Your task to perform on an android device: Open the calendar and show me this week's events Image 0: 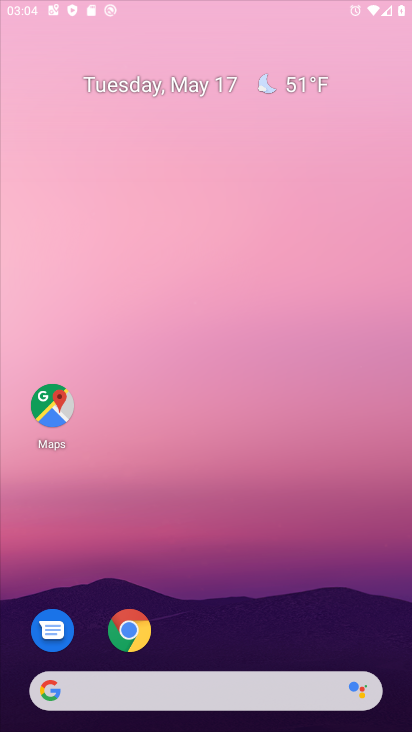
Step 0: drag from (173, 478) to (226, 152)
Your task to perform on an android device: Open the calendar and show me this week's events Image 1: 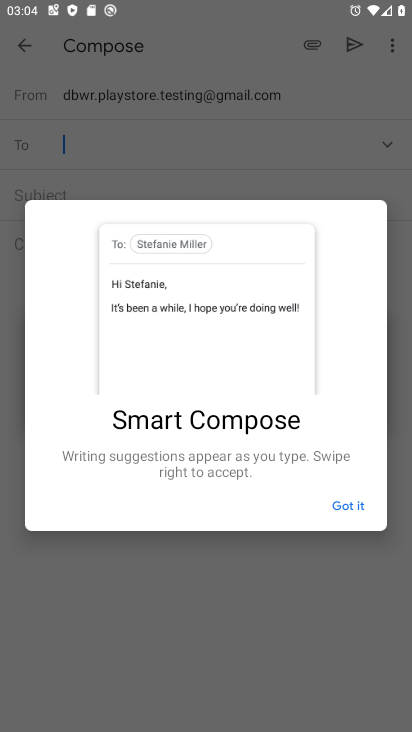
Step 1: click (339, 504)
Your task to perform on an android device: Open the calendar and show me this week's events Image 2: 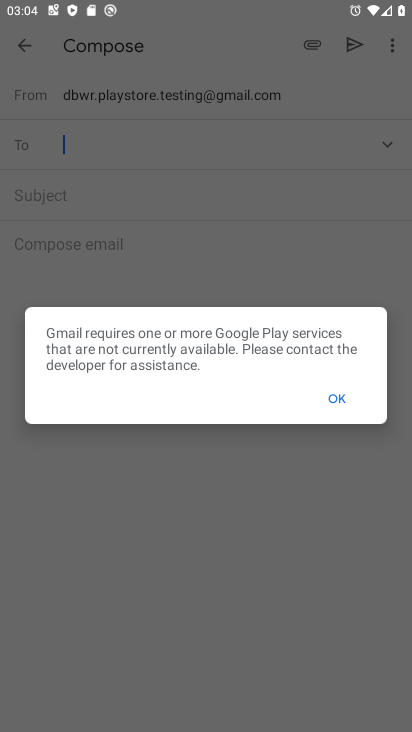
Step 2: press back button
Your task to perform on an android device: Open the calendar and show me this week's events Image 3: 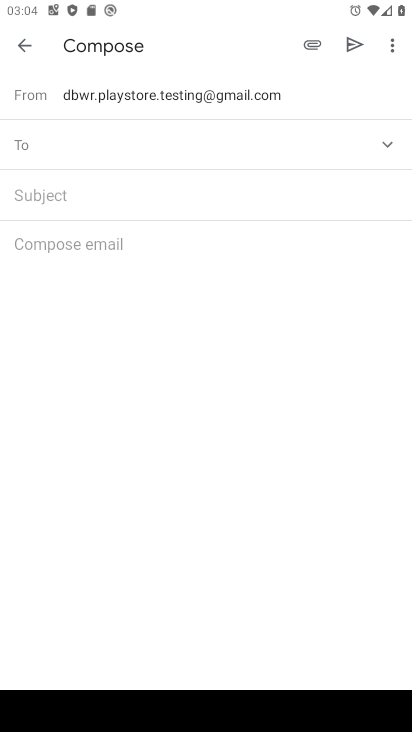
Step 3: press back button
Your task to perform on an android device: Open the calendar and show me this week's events Image 4: 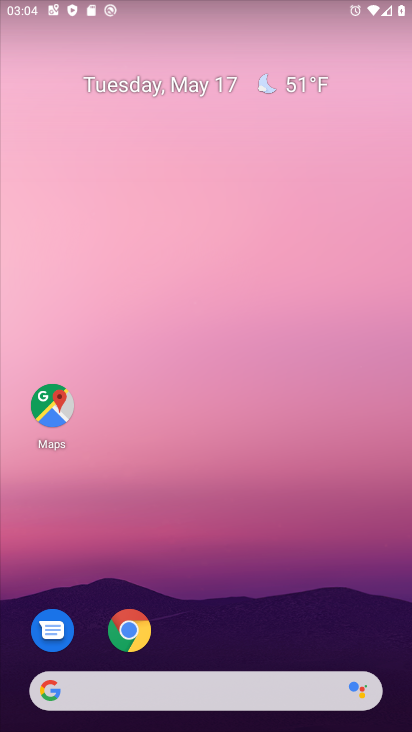
Step 4: drag from (228, 596) to (295, 19)
Your task to perform on an android device: Open the calendar and show me this week's events Image 5: 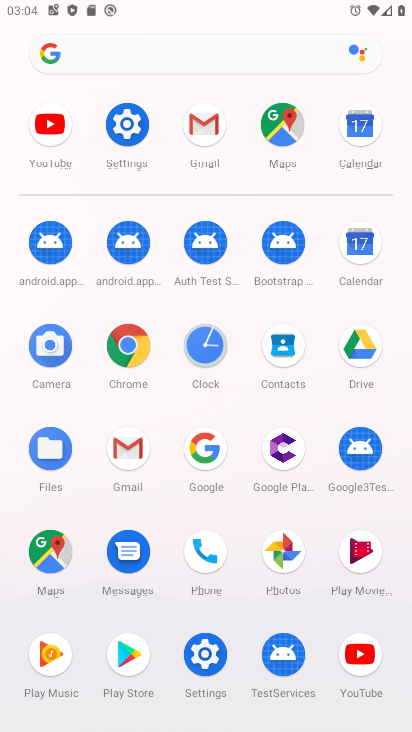
Step 5: click (350, 242)
Your task to perform on an android device: Open the calendar and show me this week's events Image 6: 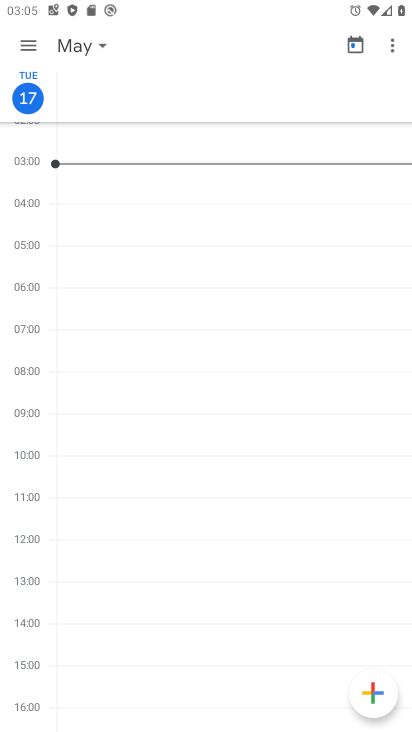
Step 6: press back button
Your task to perform on an android device: Open the calendar and show me this week's events Image 7: 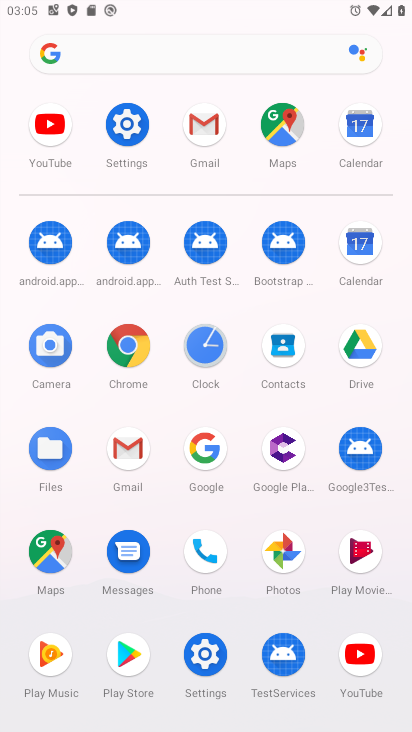
Step 7: click (357, 251)
Your task to perform on an android device: Open the calendar and show me this week's events Image 8: 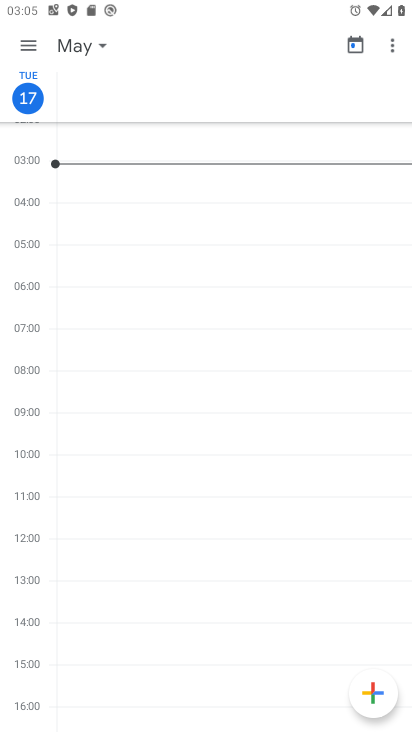
Step 8: click (34, 44)
Your task to perform on an android device: Open the calendar and show me this week's events Image 9: 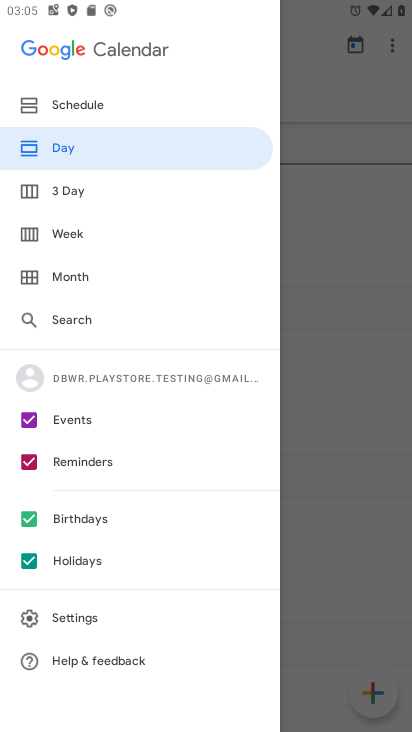
Step 9: click (78, 106)
Your task to perform on an android device: Open the calendar and show me this week's events Image 10: 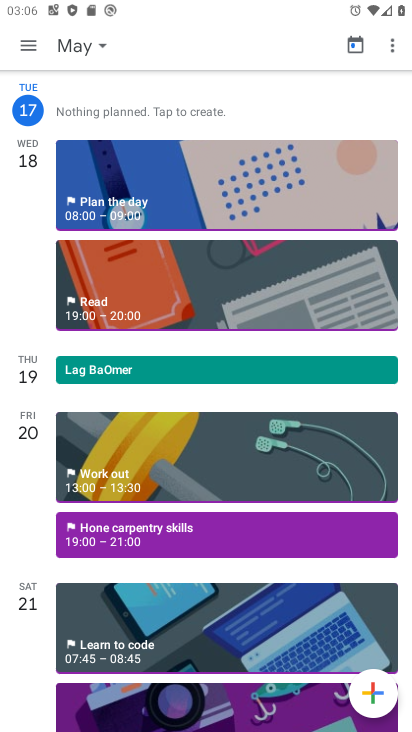
Step 10: click (176, 391)
Your task to perform on an android device: Open the calendar and show me this week's events Image 11: 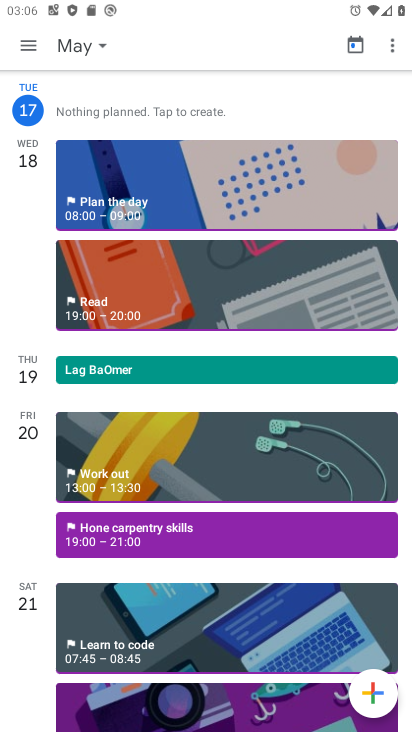
Step 11: click (176, 391)
Your task to perform on an android device: Open the calendar and show me this week's events Image 12: 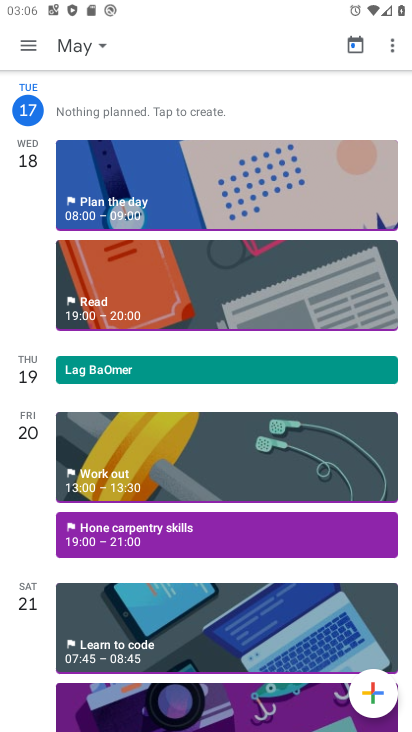
Step 12: click (176, 391)
Your task to perform on an android device: Open the calendar and show me this week's events Image 13: 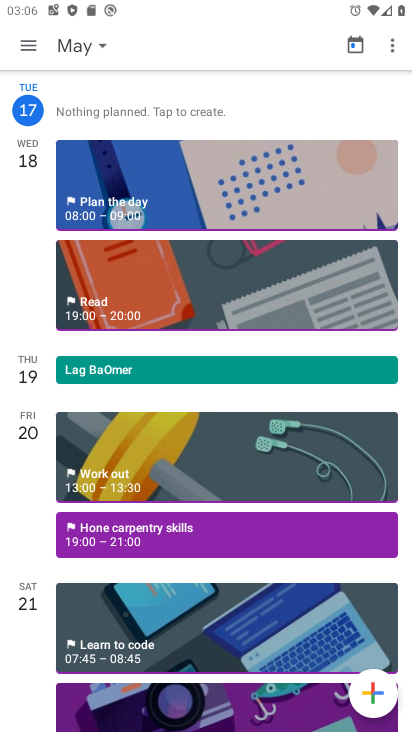
Step 13: click (79, 38)
Your task to perform on an android device: Open the calendar and show me this week's events Image 14: 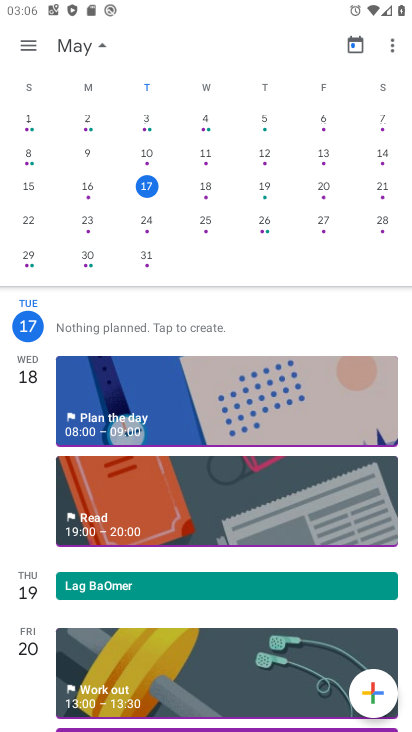
Step 14: click (85, 45)
Your task to perform on an android device: Open the calendar and show me this week's events Image 15: 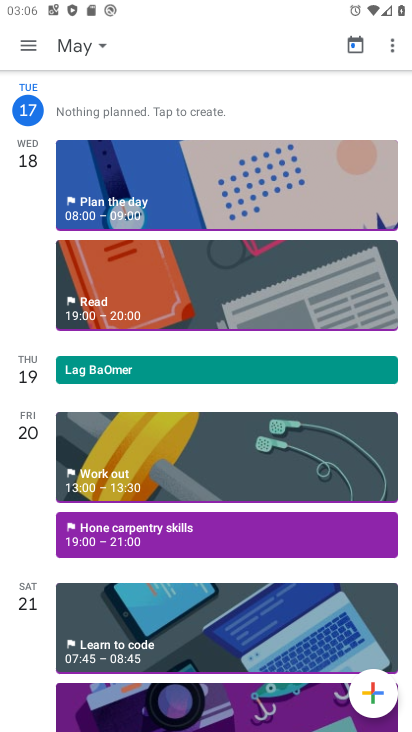
Step 15: task complete